Your task to perform on an android device: Show the shopping cart on bestbuy. Search for "razer blade" on bestbuy, select the first entry, add it to the cart, then select checkout. Image 0: 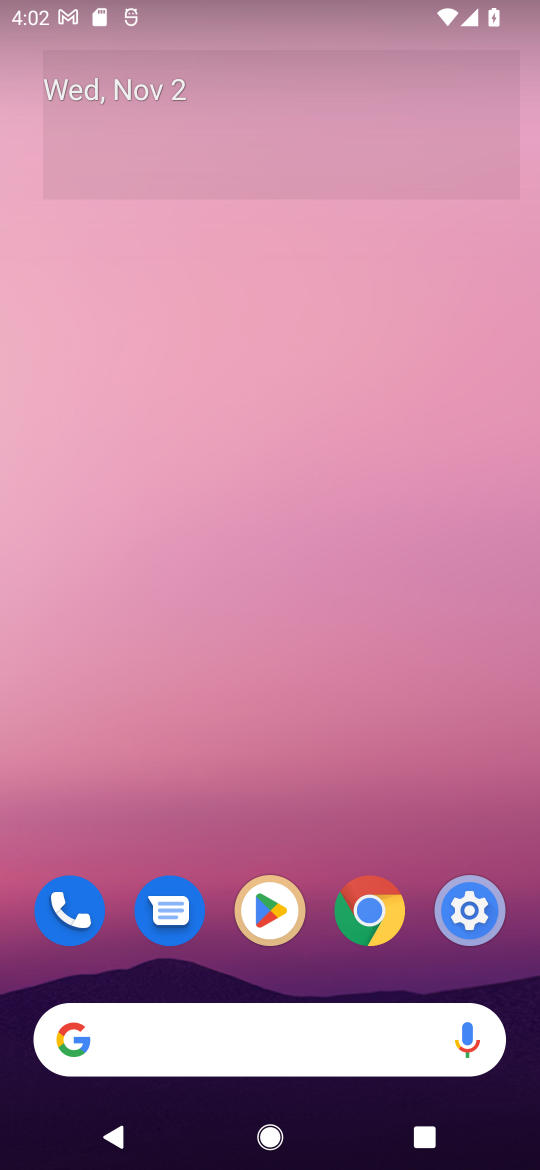
Step 0: click (263, 1060)
Your task to perform on an android device: Show the shopping cart on bestbuy. Search for "razer blade" on bestbuy, select the first entry, add it to the cart, then select checkout. Image 1: 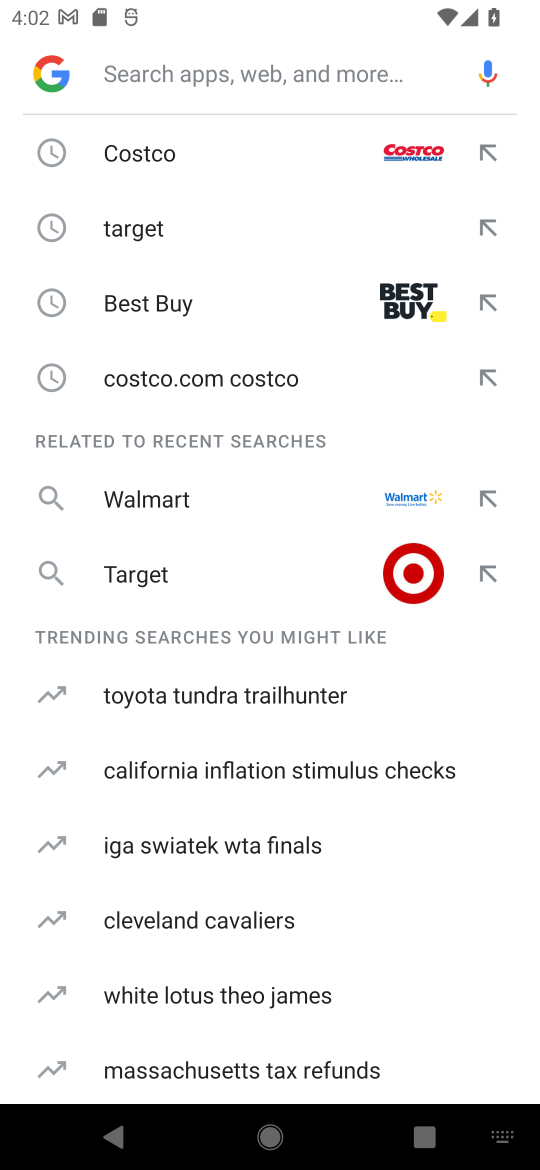
Step 1: type " bestbuy"
Your task to perform on an android device: Show the shopping cart on bestbuy. Search for "razer blade" on bestbuy, select the first entry, add it to the cart, then select checkout. Image 2: 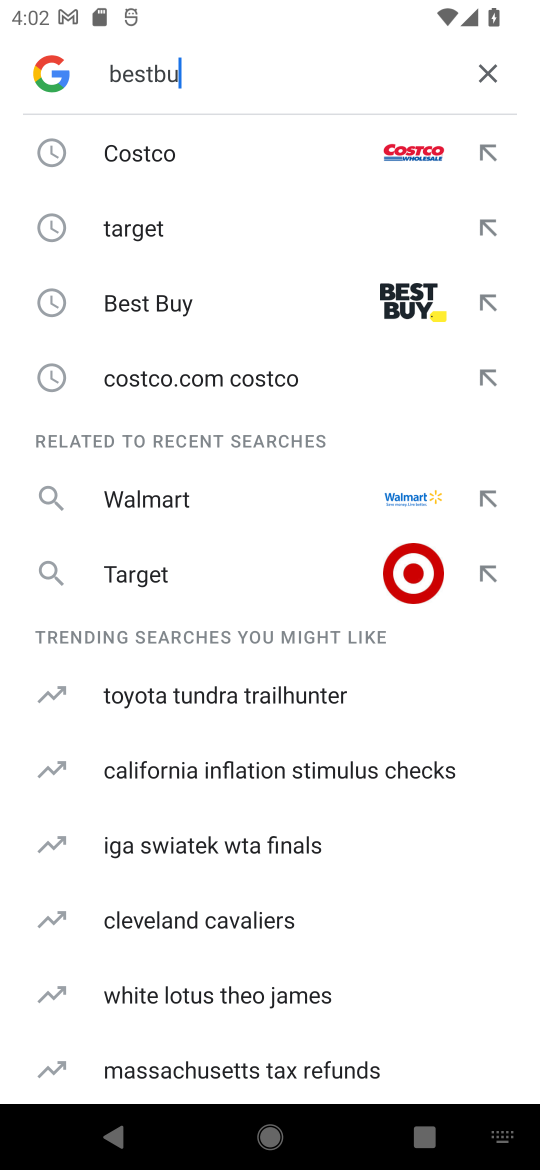
Step 2: type ""
Your task to perform on an android device: Show the shopping cart on bestbuy. Search for "razer blade" on bestbuy, select the first entry, add it to the cart, then select checkout. Image 3: 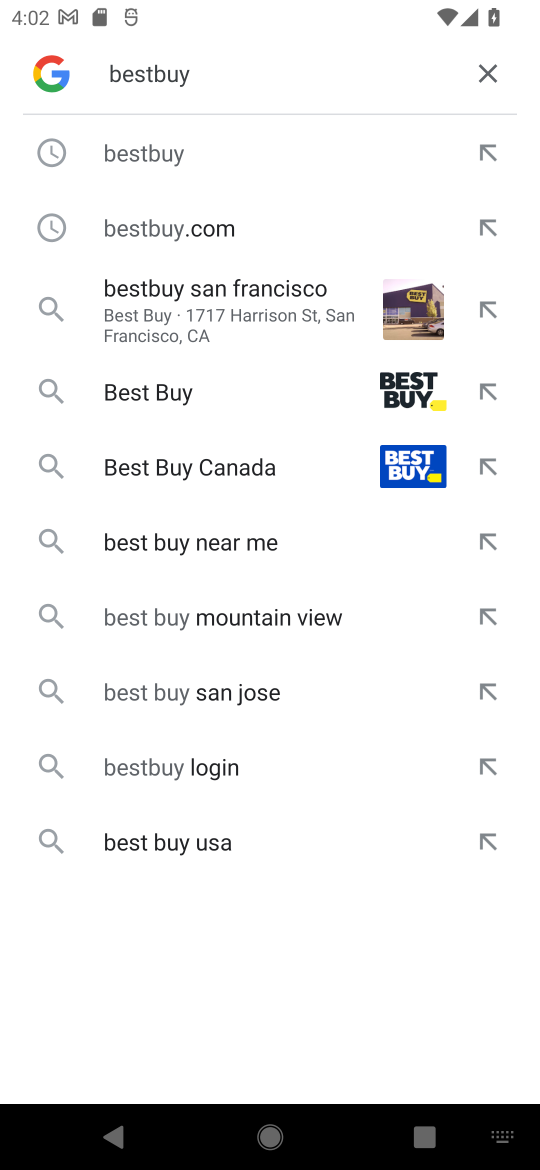
Step 3: press enter
Your task to perform on an android device: Show the shopping cart on bestbuy. Search for "razer blade" on bestbuy, select the first entry, add it to the cart, then select checkout. Image 4: 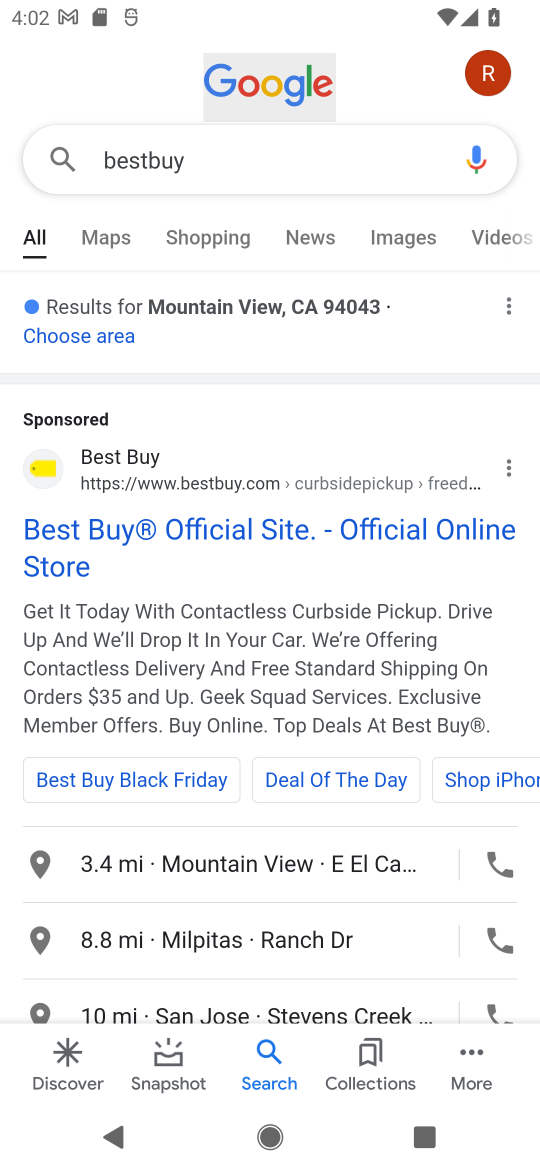
Step 4: click (173, 549)
Your task to perform on an android device: Show the shopping cart on bestbuy. Search for "razer blade" on bestbuy, select the first entry, add it to the cart, then select checkout. Image 5: 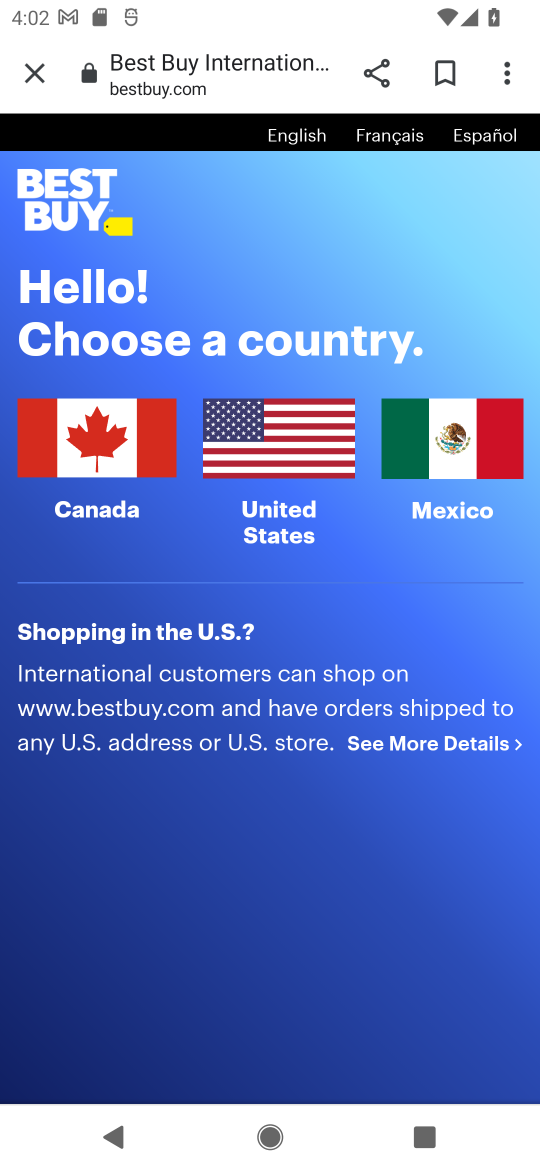
Step 5: click (277, 448)
Your task to perform on an android device: Show the shopping cart on bestbuy. Search for "razer blade" on bestbuy, select the first entry, add it to the cart, then select checkout. Image 6: 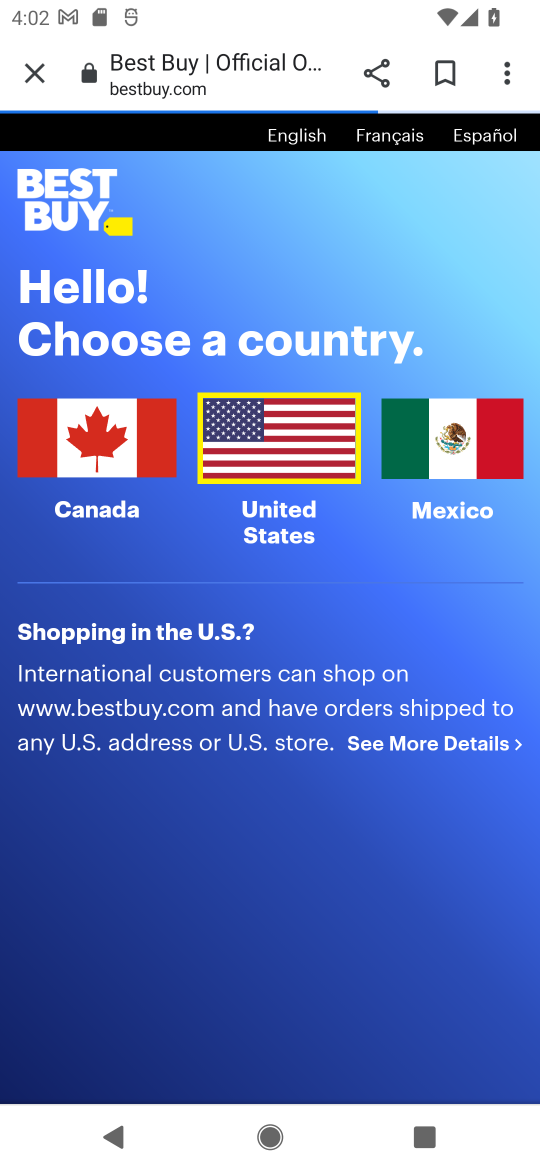
Step 6: click (277, 448)
Your task to perform on an android device: Show the shopping cart on bestbuy. Search for "razer blade" on bestbuy, select the first entry, add it to the cart, then select checkout. Image 7: 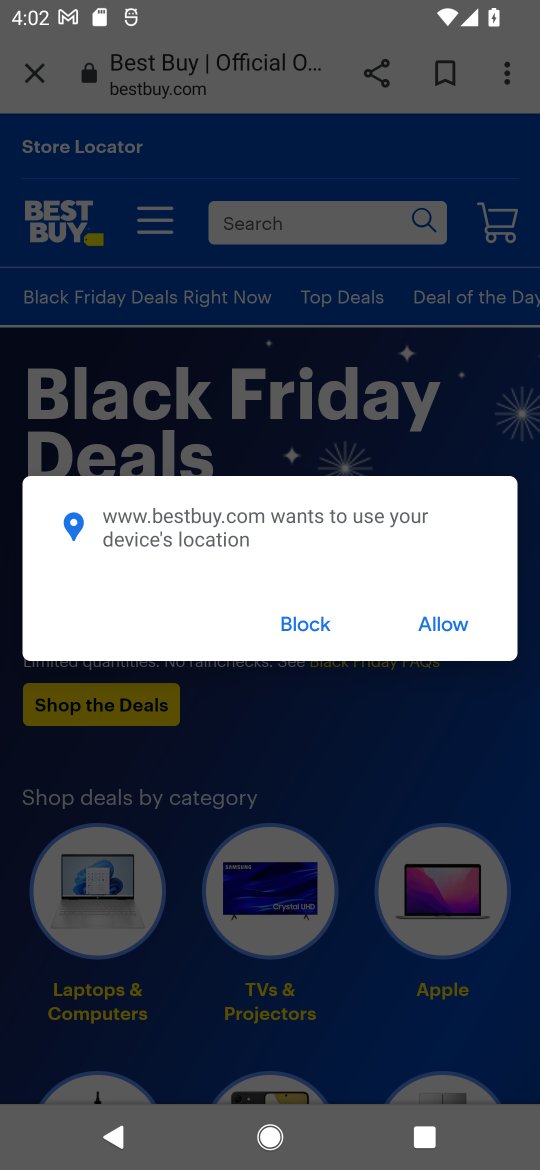
Step 7: click (319, 617)
Your task to perform on an android device: Show the shopping cart on bestbuy. Search for "razer blade" on bestbuy, select the first entry, add it to the cart, then select checkout. Image 8: 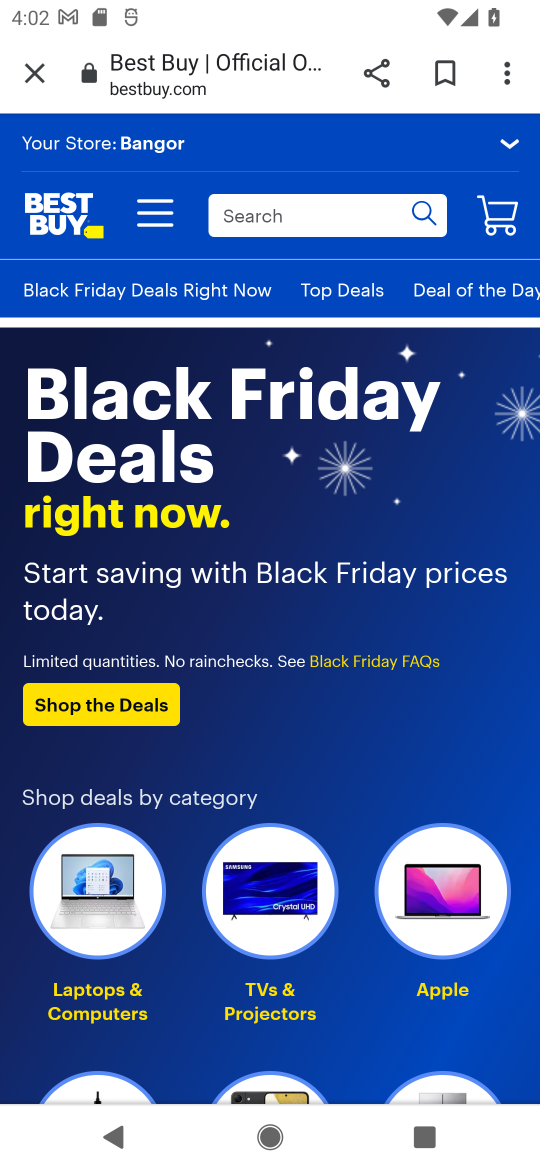
Step 8: click (253, 223)
Your task to perform on an android device: Show the shopping cart on bestbuy. Search for "razer blade" on bestbuy, select the first entry, add it to the cart, then select checkout. Image 9: 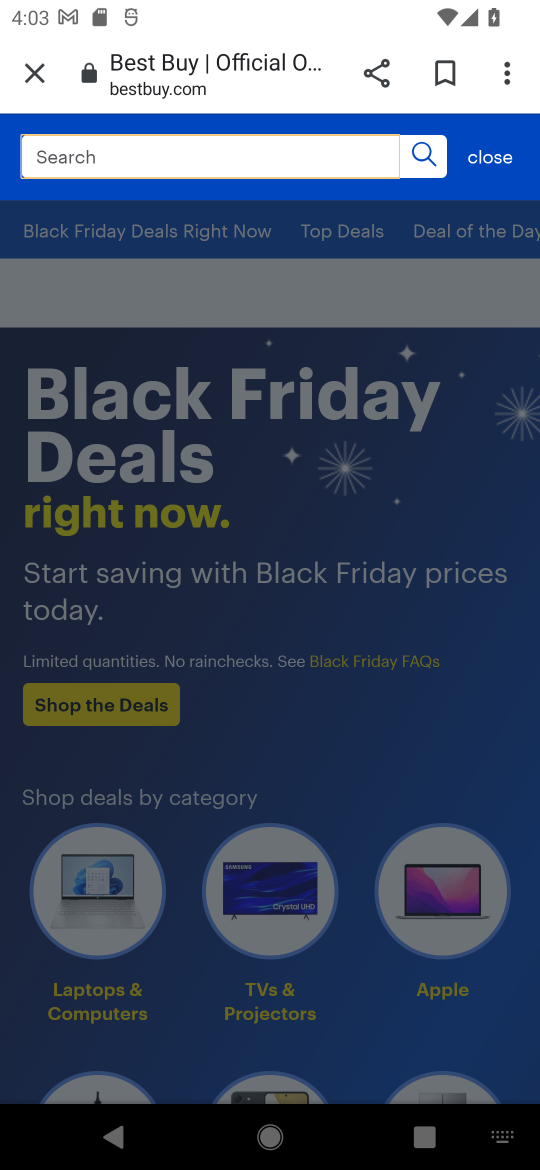
Step 9: type "razer blade"
Your task to perform on an android device: Show the shopping cart on bestbuy. Search for "razer blade" on bestbuy, select the first entry, add it to the cart, then select checkout. Image 10: 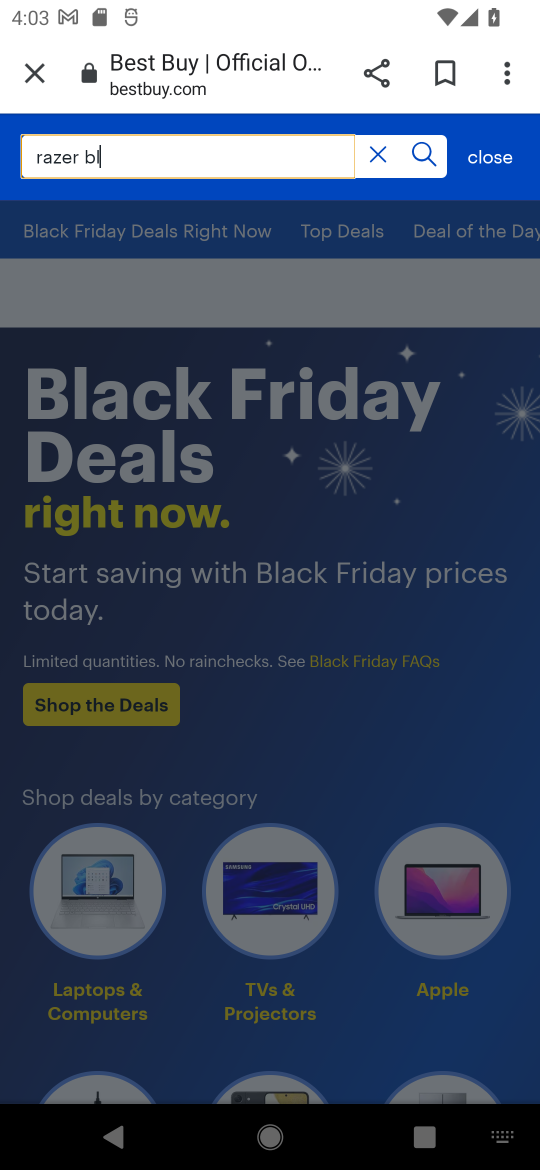
Step 10: type ""
Your task to perform on an android device: Show the shopping cart on bestbuy. Search for "razer blade" on bestbuy, select the first entry, add it to the cart, then select checkout. Image 11: 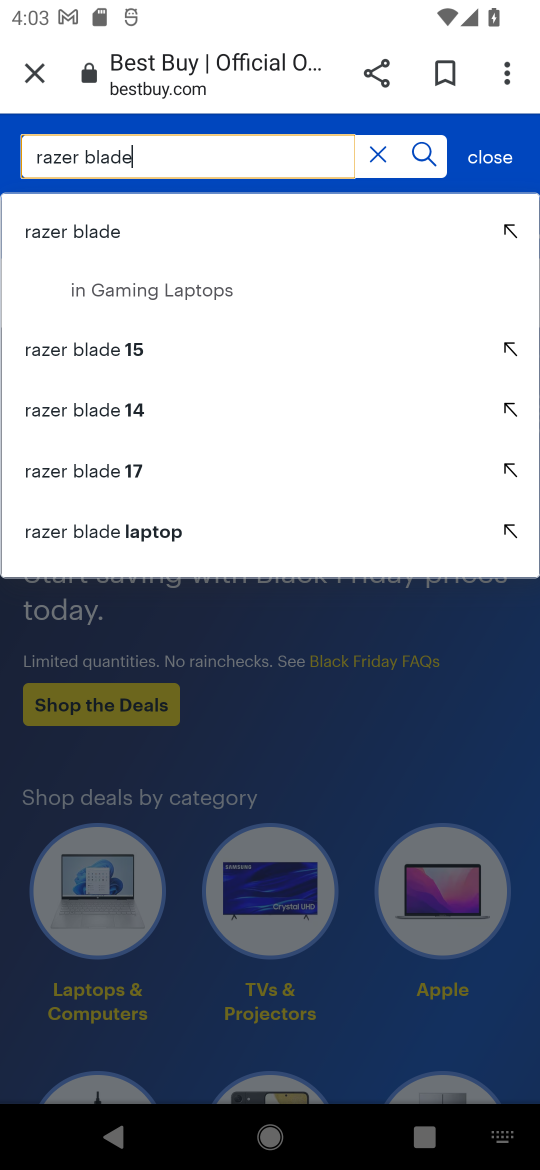
Step 11: press enter
Your task to perform on an android device: Show the shopping cart on bestbuy. Search for "razer blade" on bestbuy, select the first entry, add it to the cart, then select checkout. Image 12: 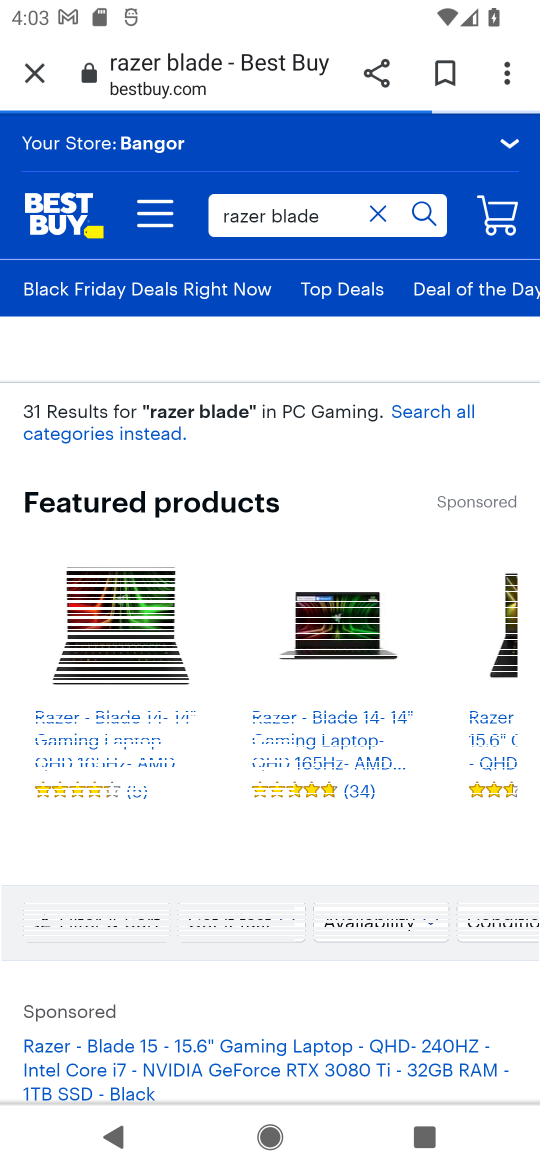
Step 12: click (109, 721)
Your task to perform on an android device: Show the shopping cart on bestbuy. Search for "razer blade" on bestbuy, select the first entry, add it to the cart, then select checkout. Image 13: 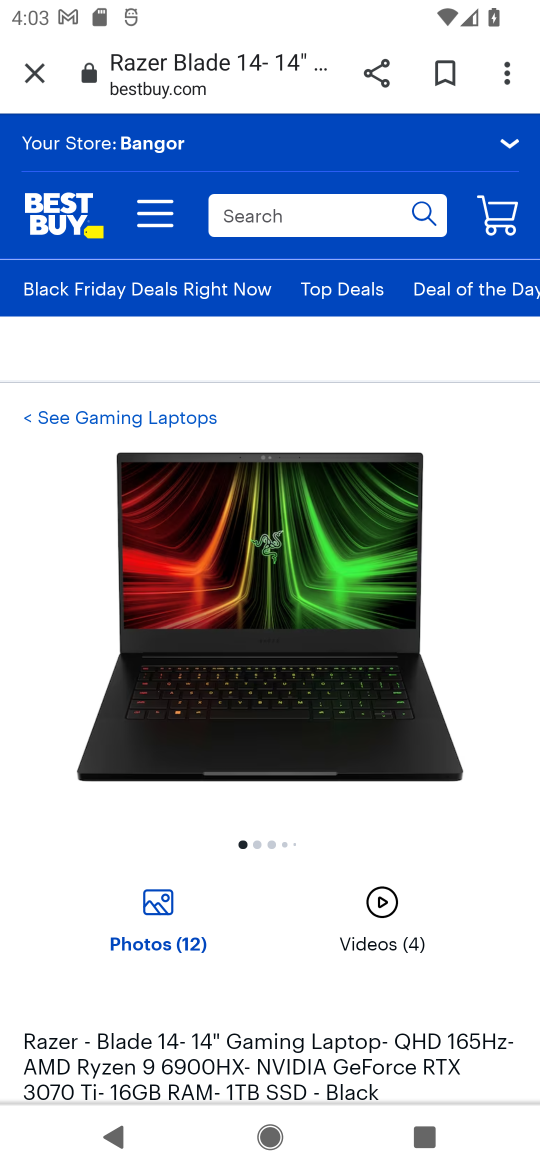
Step 13: drag from (73, 952) to (35, 325)
Your task to perform on an android device: Show the shopping cart on bestbuy. Search for "razer blade" on bestbuy, select the first entry, add it to the cart, then select checkout. Image 14: 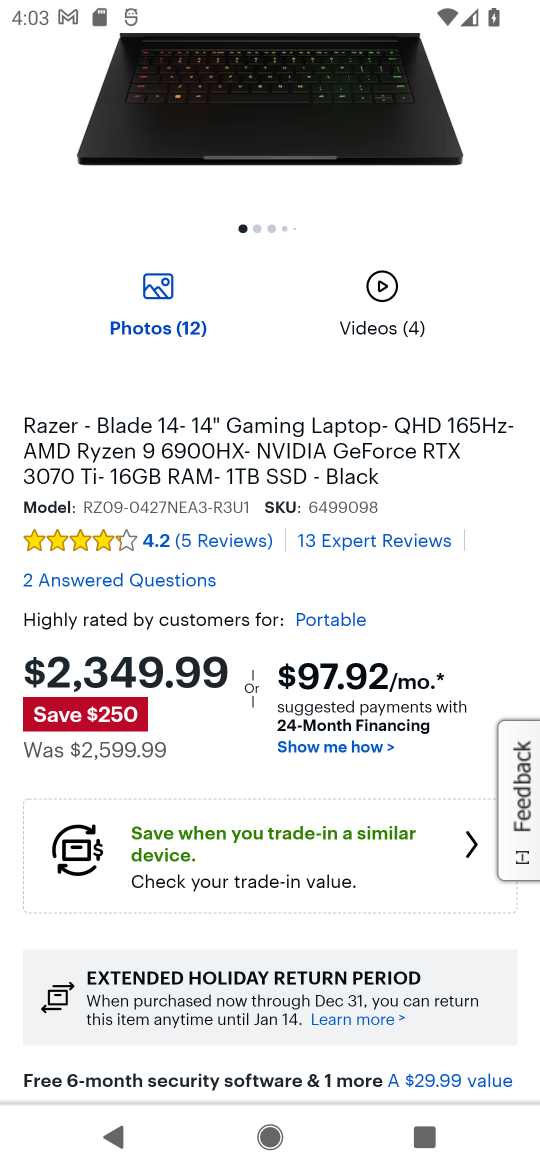
Step 14: drag from (197, 786) to (131, 154)
Your task to perform on an android device: Show the shopping cart on bestbuy. Search for "razer blade" on bestbuy, select the first entry, add it to the cart, then select checkout. Image 15: 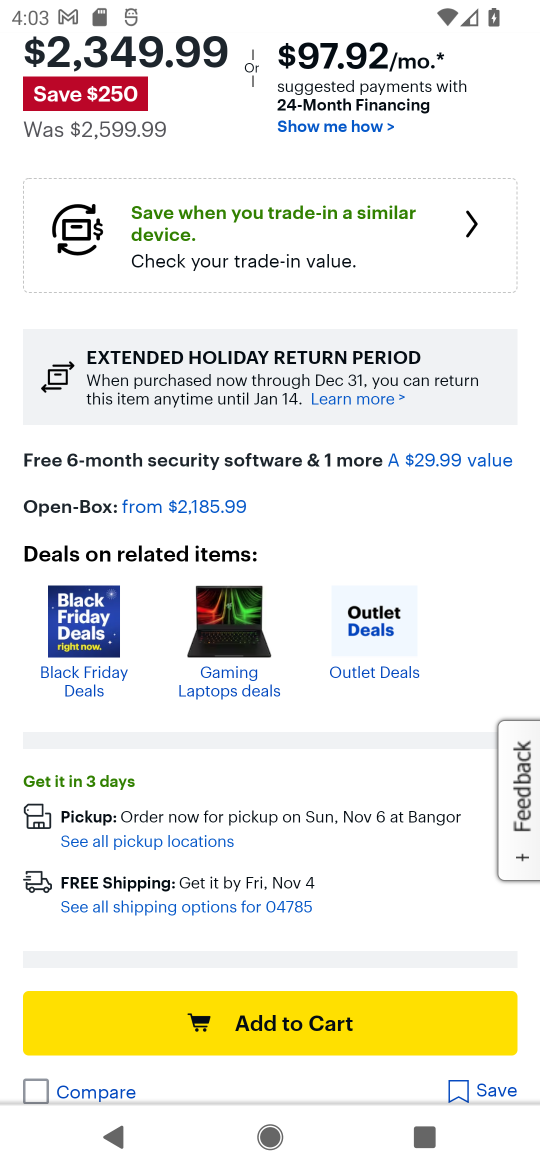
Step 15: click (286, 1016)
Your task to perform on an android device: Show the shopping cart on bestbuy. Search for "razer blade" on bestbuy, select the first entry, add it to the cart, then select checkout. Image 16: 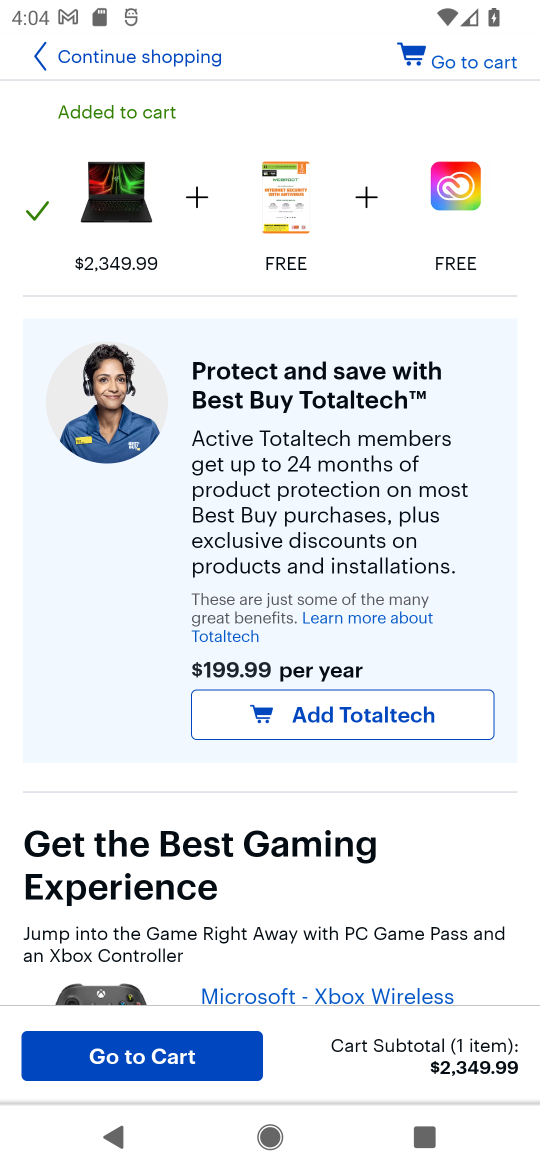
Step 16: click (199, 1049)
Your task to perform on an android device: Show the shopping cart on bestbuy. Search for "razer blade" on bestbuy, select the first entry, add it to the cart, then select checkout. Image 17: 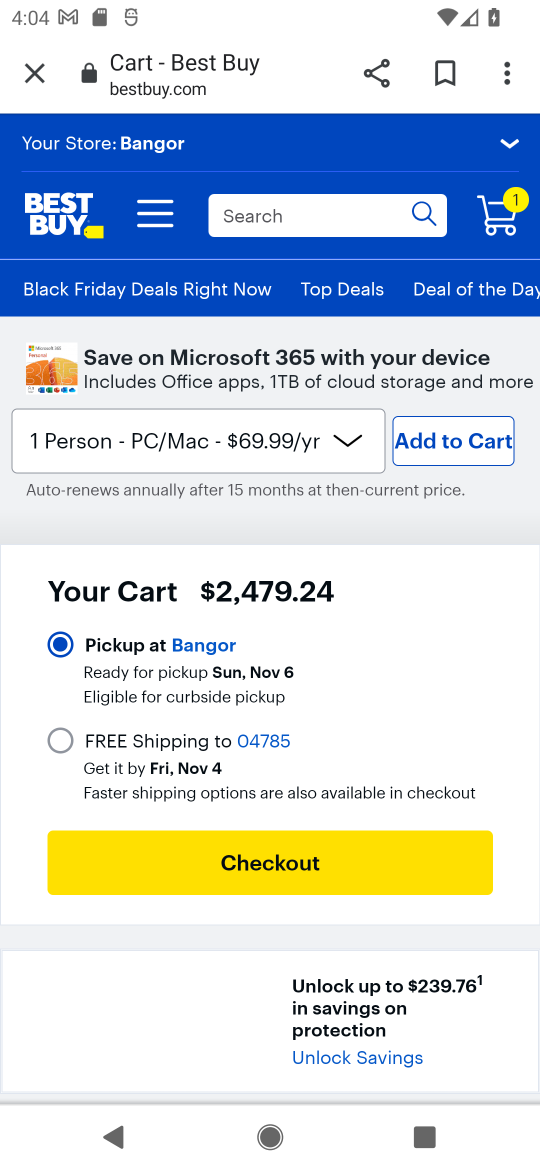
Step 17: click (504, 205)
Your task to perform on an android device: Show the shopping cart on bestbuy. Search for "razer blade" on bestbuy, select the first entry, add it to the cart, then select checkout. Image 18: 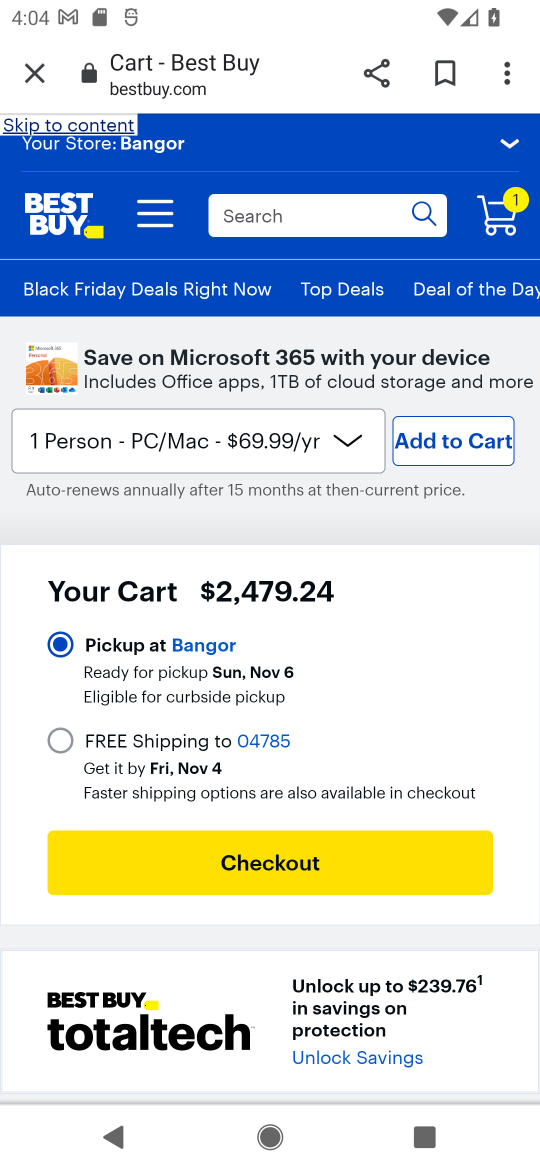
Step 18: click (334, 858)
Your task to perform on an android device: Show the shopping cart on bestbuy. Search for "razer blade" on bestbuy, select the first entry, add it to the cart, then select checkout. Image 19: 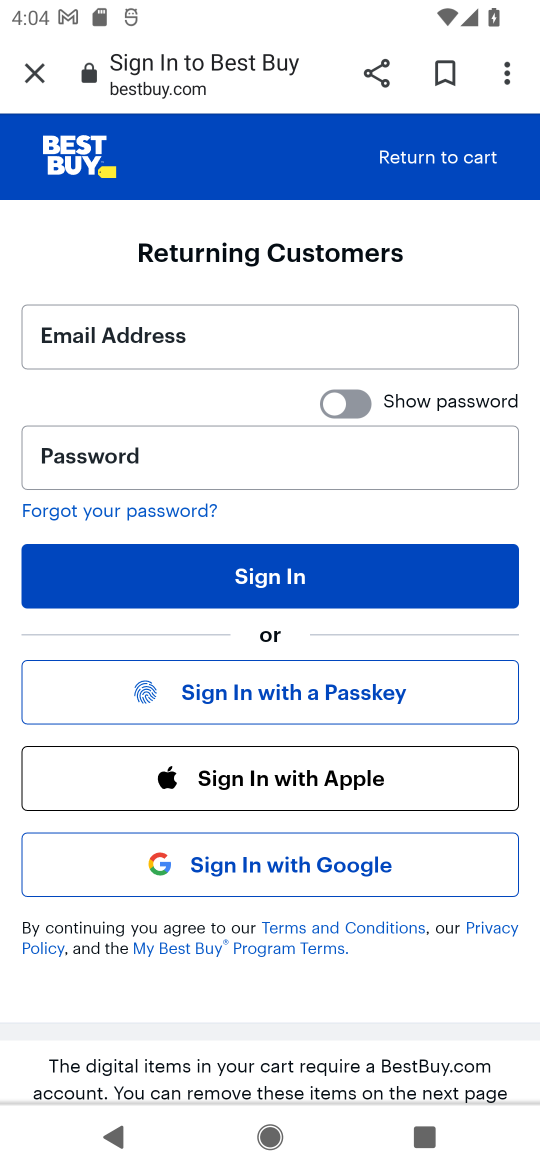
Step 19: task complete